Your task to perform on an android device: Play the latest video from the Washington Post Image 0: 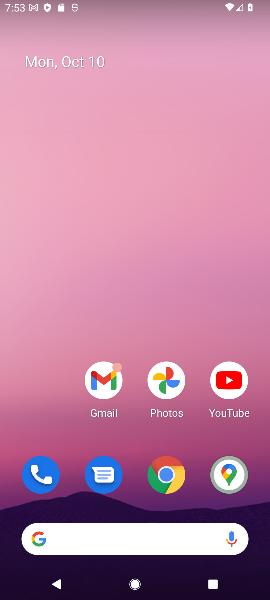
Step 0: drag from (132, 506) to (129, 75)
Your task to perform on an android device: Play the latest video from the Washington Post Image 1: 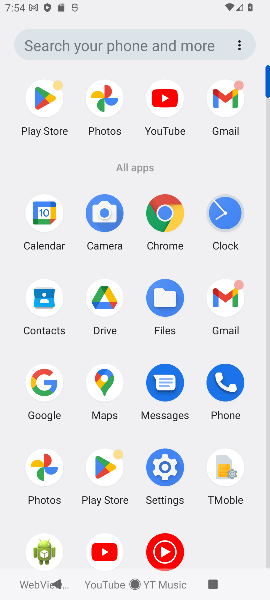
Step 1: click (99, 546)
Your task to perform on an android device: Play the latest video from the Washington Post Image 2: 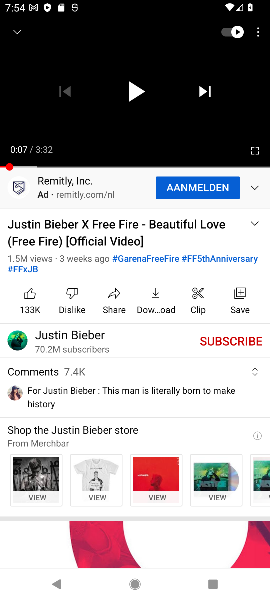
Step 2: click (20, 34)
Your task to perform on an android device: Play the latest video from the Washington Post Image 3: 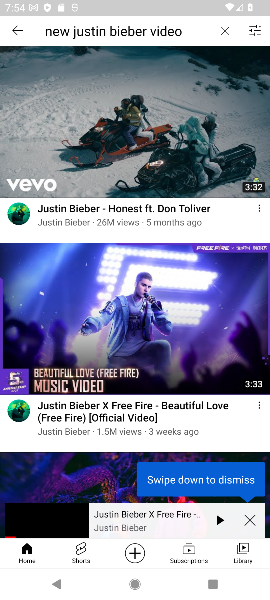
Step 3: click (249, 522)
Your task to perform on an android device: Play the latest video from the Washington Post Image 4: 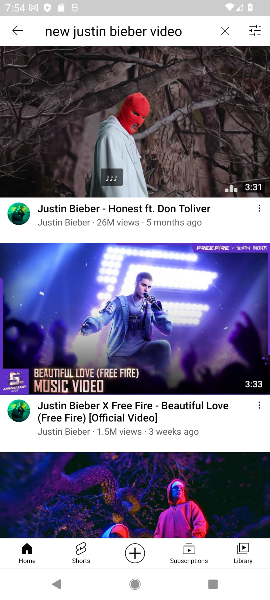
Step 4: click (224, 28)
Your task to perform on an android device: Play the latest video from the Washington Post Image 5: 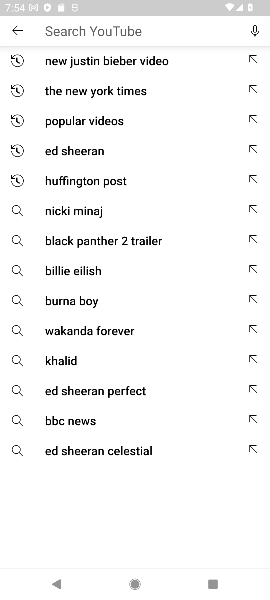
Step 5: type "the latest video from the Washington Post"
Your task to perform on an android device: Play the latest video from the Washington Post Image 6: 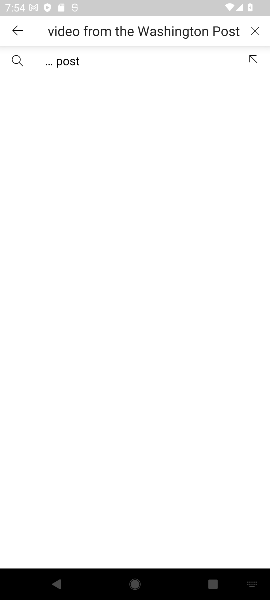
Step 6: click (164, 60)
Your task to perform on an android device: Play the latest video from the Washington Post Image 7: 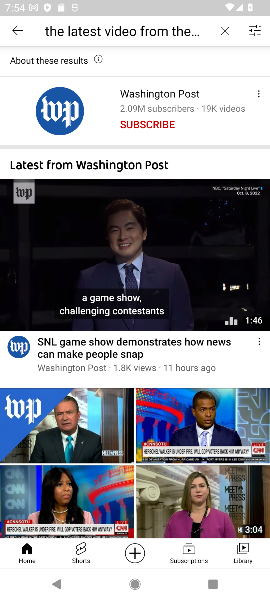
Step 7: click (180, 241)
Your task to perform on an android device: Play the latest video from the Washington Post Image 8: 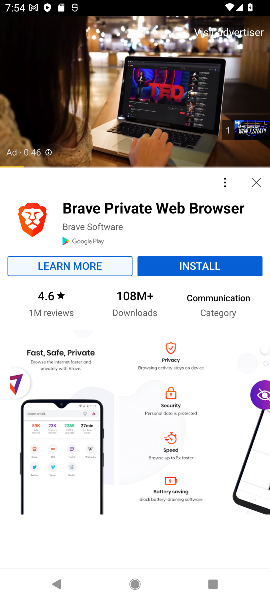
Step 8: click (248, 176)
Your task to perform on an android device: Play the latest video from the Washington Post Image 9: 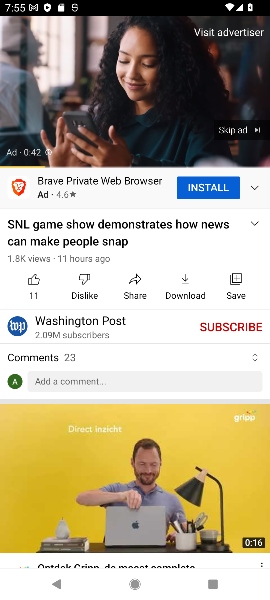
Step 9: click (228, 127)
Your task to perform on an android device: Play the latest video from the Washington Post Image 10: 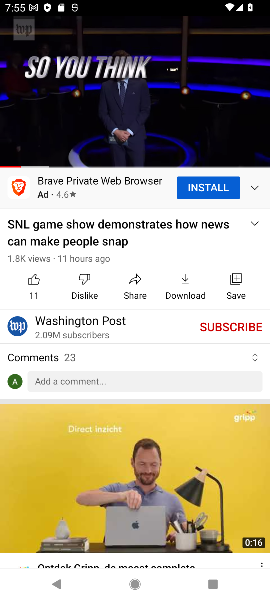
Step 10: task complete